Your task to perform on an android device: Open Google Image 0: 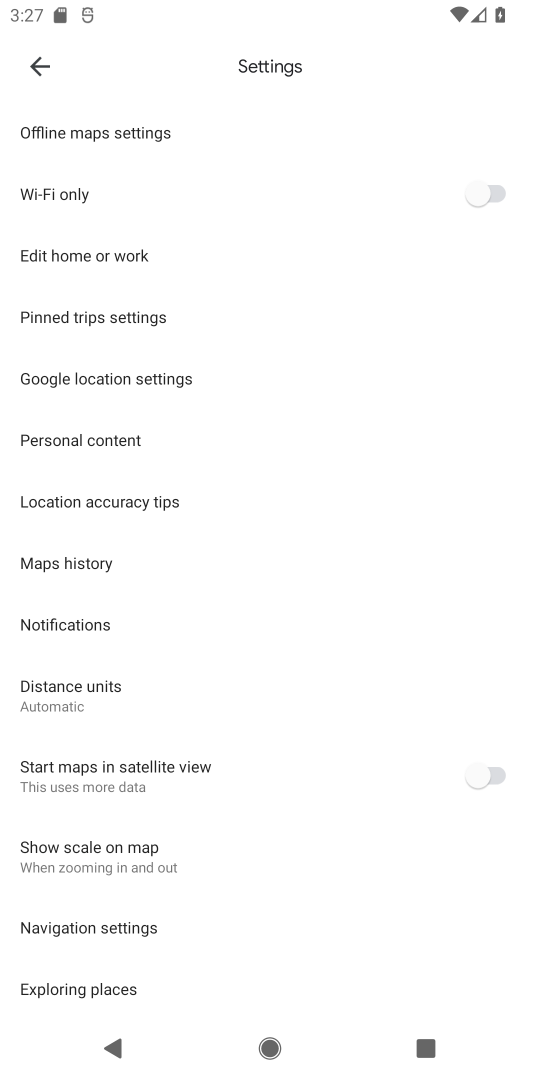
Step 0: press home button
Your task to perform on an android device: Open Google Image 1: 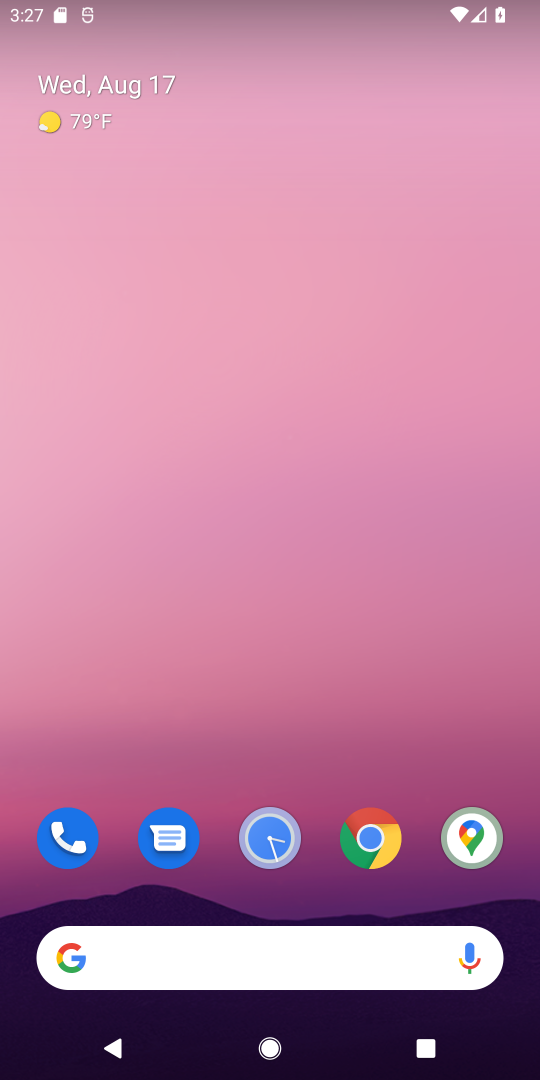
Step 1: drag from (98, 1005) to (98, 442)
Your task to perform on an android device: Open Google Image 2: 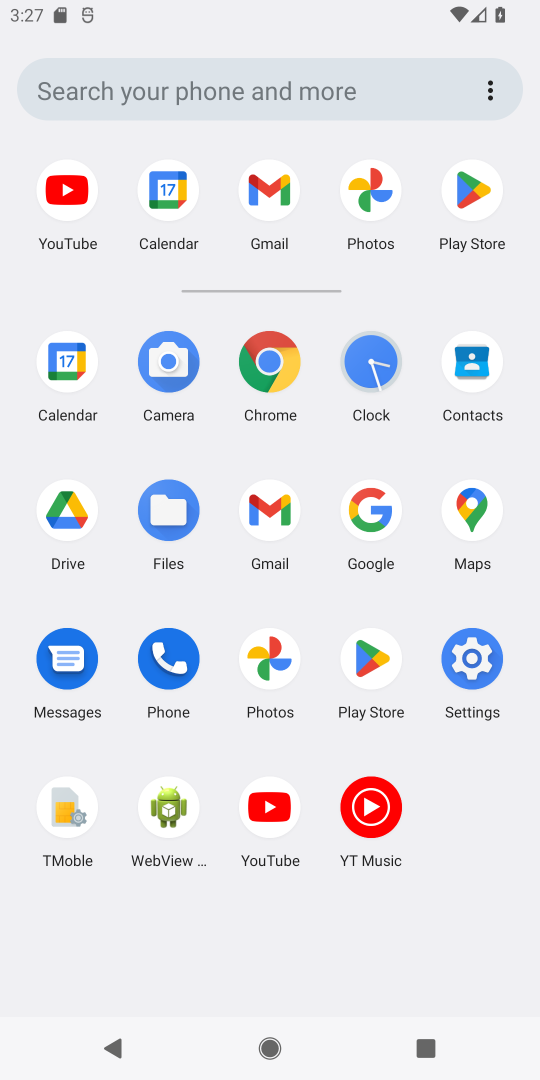
Step 2: click (365, 503)
Your task to perform on an android device: Open Google Image 3: 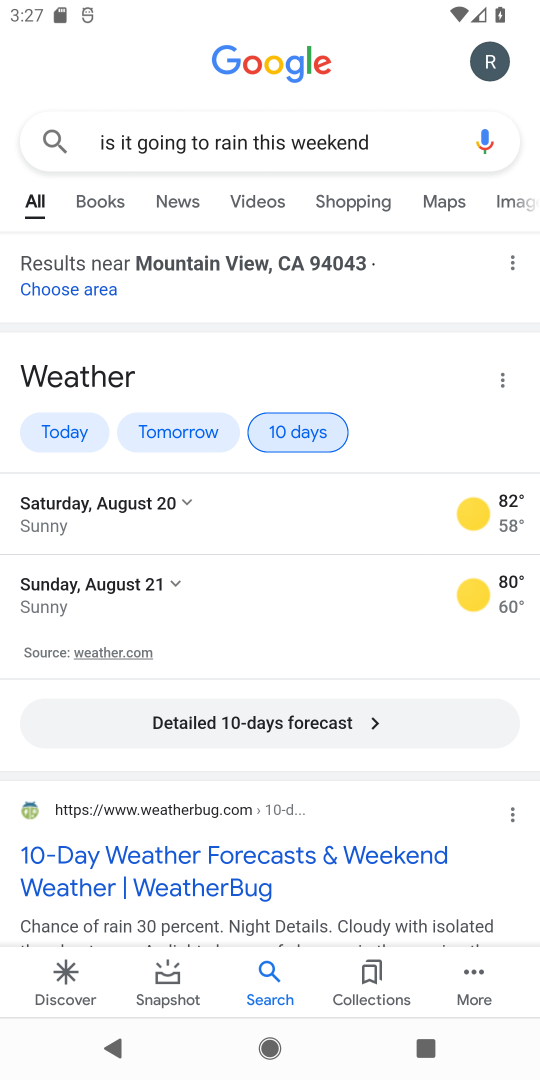
Step 3: click (416, 144)
Your task to perform on an android device: Open Google Image 4: 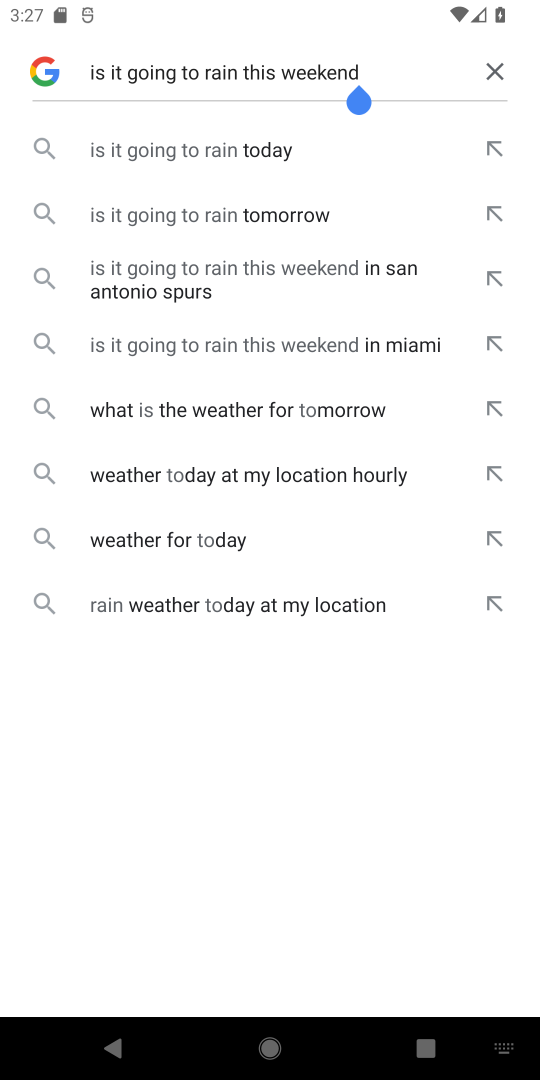
Step 4: click (486, 71)
Your task to perform on an android device: Open Google Image 5: 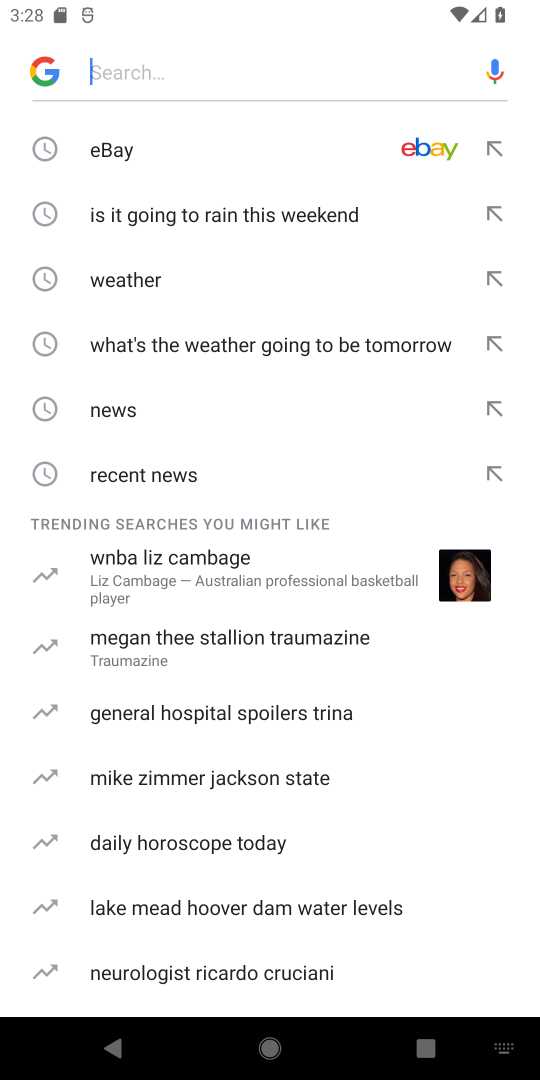
Step 5: task complete